Your task to perform on an android device: add a label to a message in the gmail app Image 0: 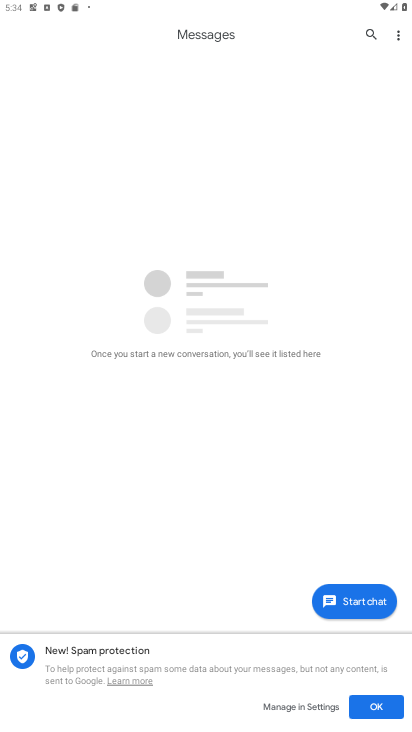
Step 0: press home button
Your task to perform on an android device: add a label to a message in the gmail app Image 1: 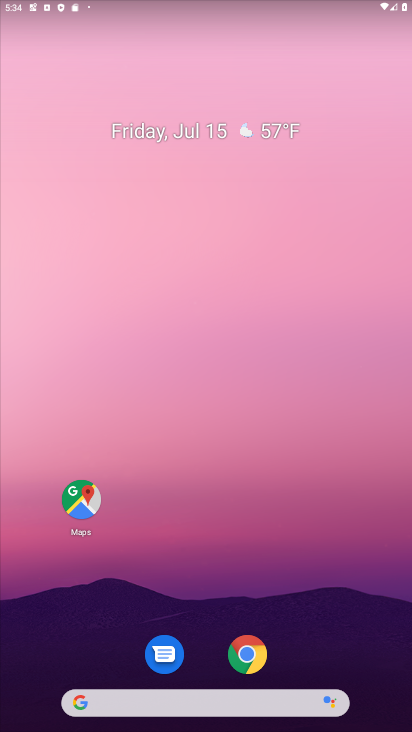
Step 1: drag from (203, 590) to (223, 120)
Your task to perform on an android device: add a label to a message in the gmail app Image 2: 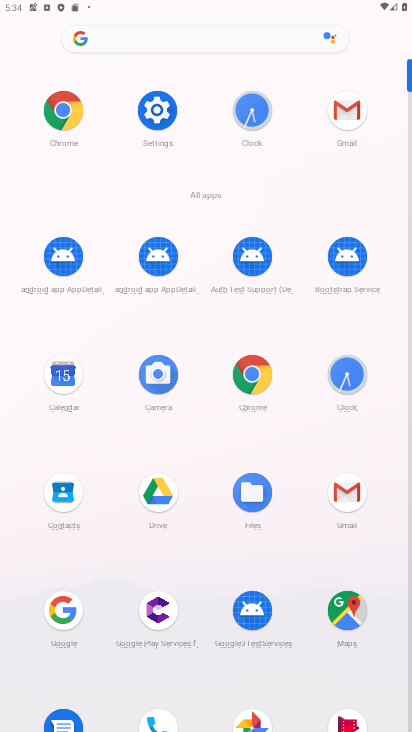
Step 2: click (346, 113)
Your task to perform on an android device: add a label to a message in the gmail app Image 3: 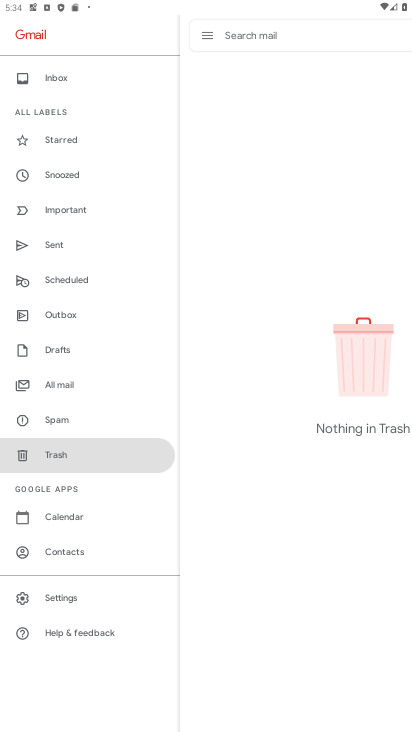
Step 3: task complete